Your task to perform on an android device: open chrome and create a bookmark for the current page Image 0: 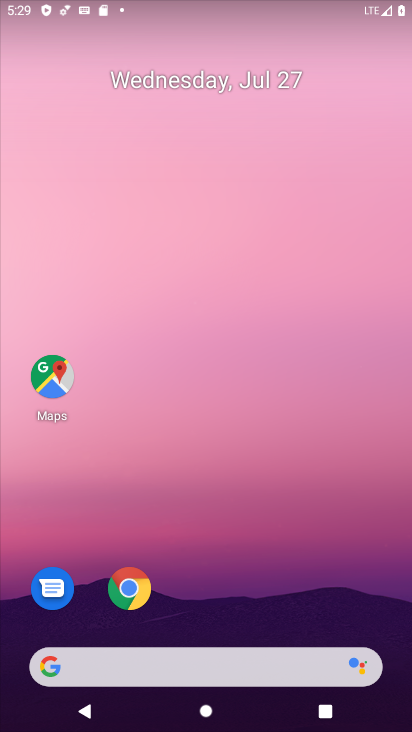
Step 0: drag from (219, 659) to (303, 27)
Your task to perform on an android device: open chrome and create a bookmark for the current page Image 1: 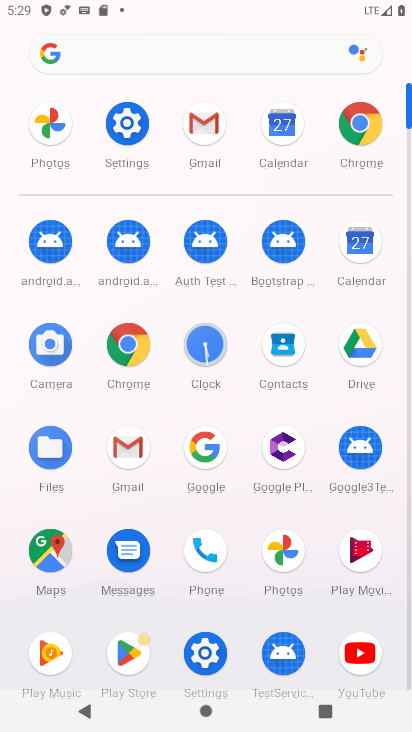
Step 1: click (139, 335)
Your task to perform on an android device: open chrome and create a bookmark for the current page Image 2: 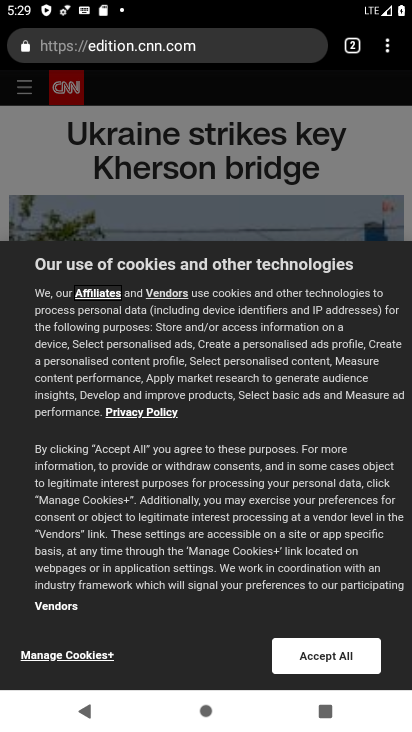
Step 2: click (386, 37)
Your task to perform on an android device: open chrome and create a bookmark for the current page Image 3: 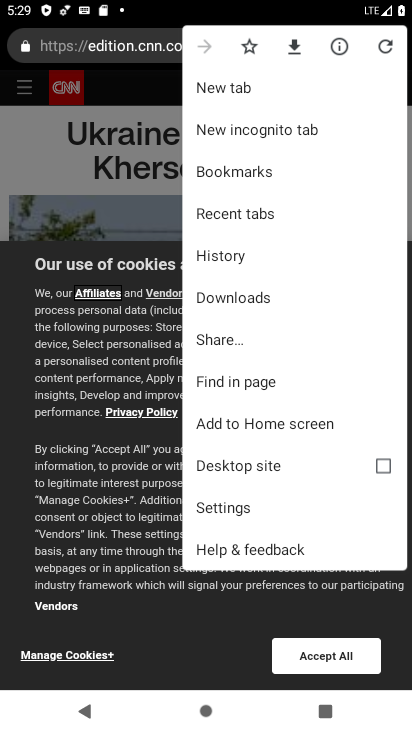
Step 3: click (112, 73)
Your task to perform on an android device: open chrome and create a bookmark for the current page Image 4: 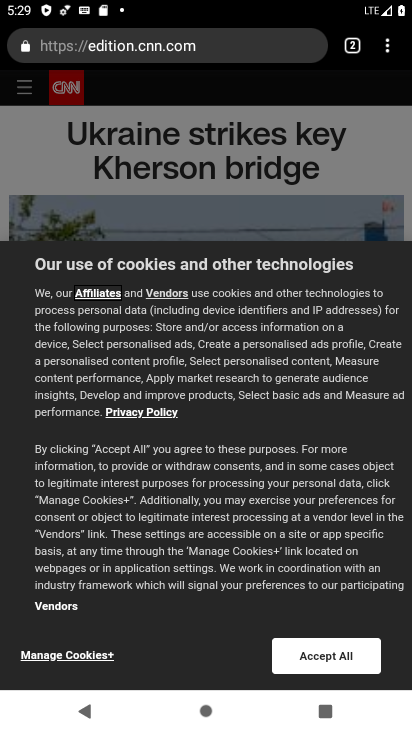
Step 4: click (386, 47)
Your task to perform on an android device: open chrome and create a bookmark for the current page Image 5: 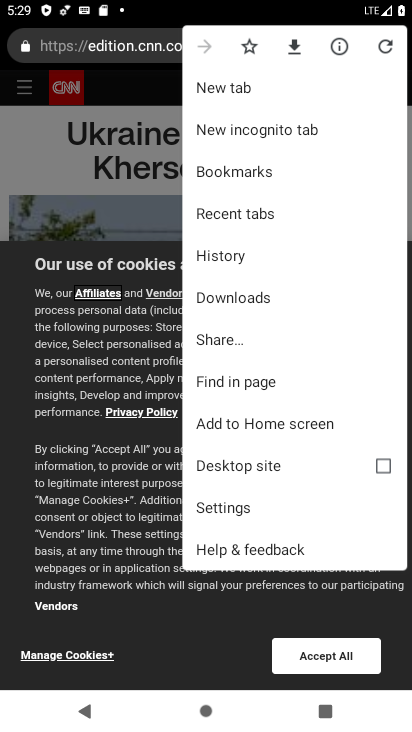
Step 5: click (250, 40)
Your task to perform on an android device: open chrome and create a bookmark for the current page Image 6: 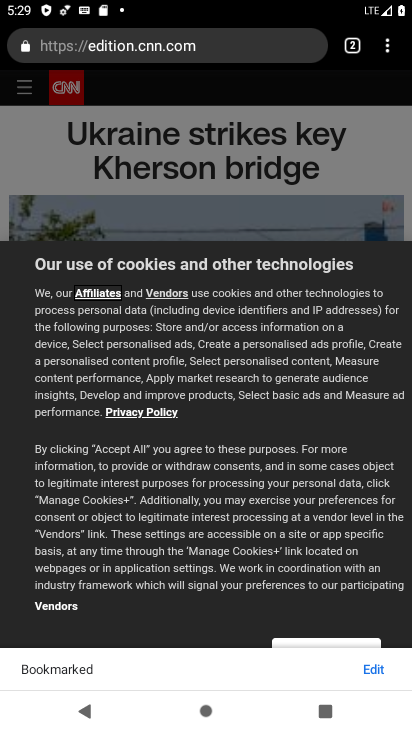
Step 6: task complete